Your task to perform on an android device: add a contact in the contacts app Image 0: 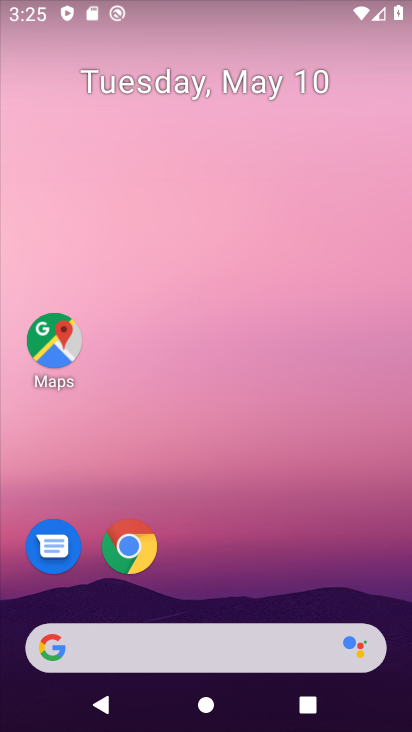
Step 0: drag from (196, 629) to (296, 110)
Your task to perform on an android device: add a contact in the contacts app Image 1: 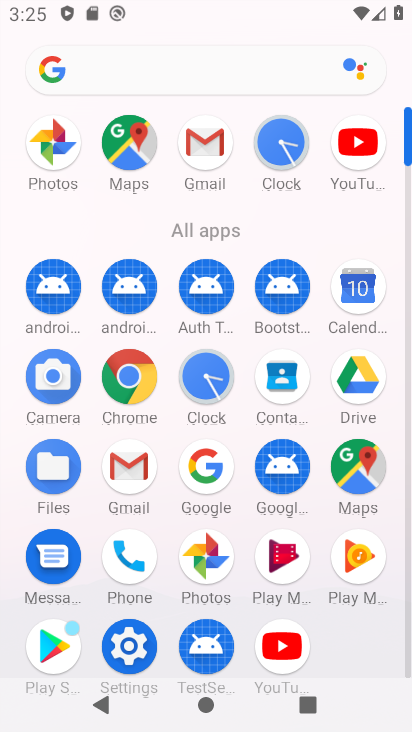
Step 1: click (288, 380)
Your task to perform on an android device: add a contact in the contacts app Image 2: 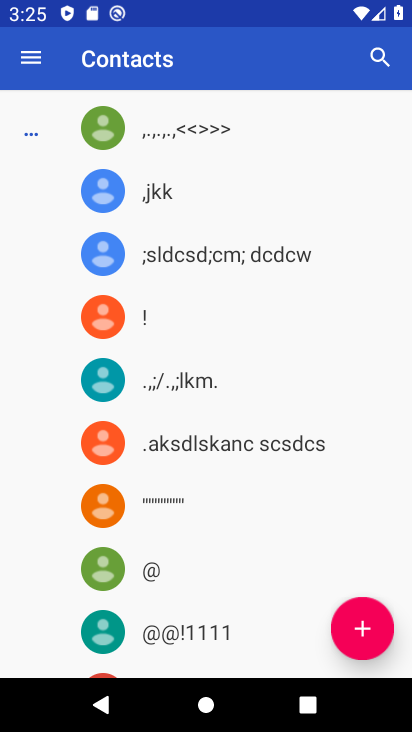
Step 2: click (364, 636)
Your task to perform on an android device: add a contact in the contacts app Image 3: 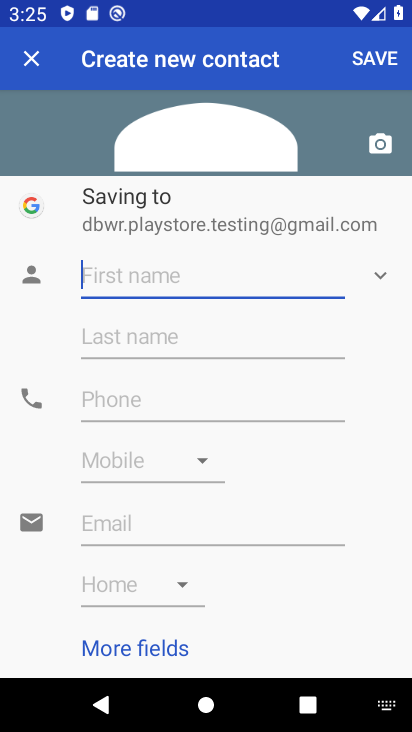
Step 3: type "POPS"
Your task to perform on an android device: add a contact in the contacts app Image 4: 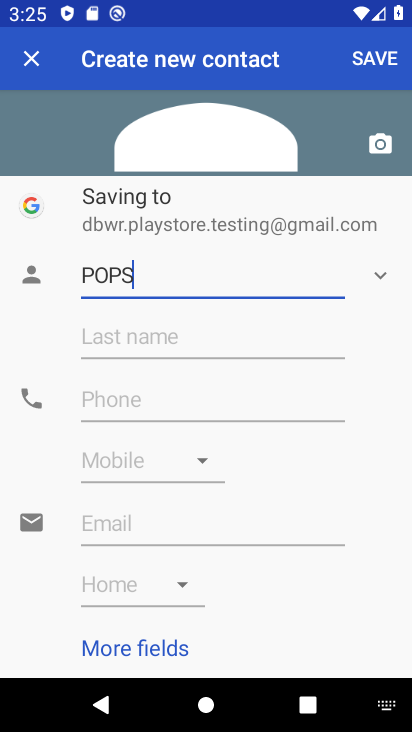
Step 4: click (150, 397)
Your task to perform on an android device: add a contact in the contacts app Image 5: 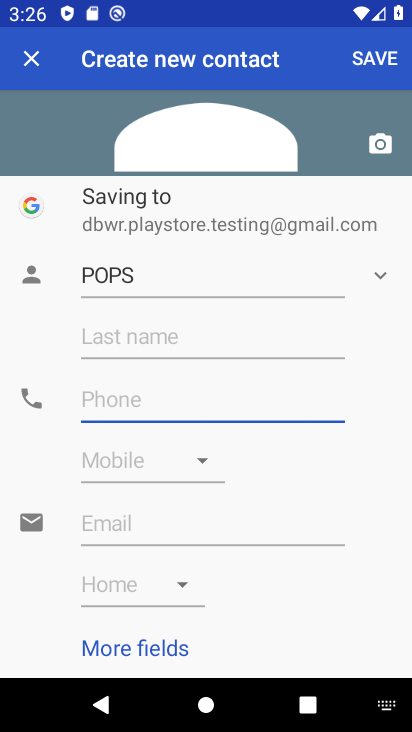
Step 5: type "2828232309"
Your task to perform on an android device: add a contact in the contacts app Image 6: 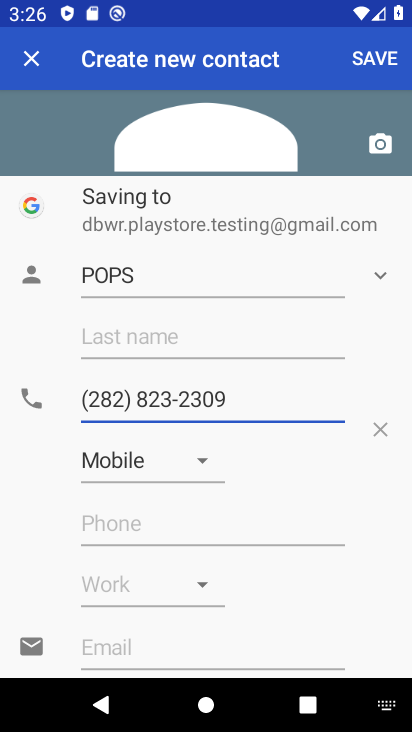
Step 6: click (386, 74)
Your task to perform on an android device: add a contact in the contacts app Image 7: 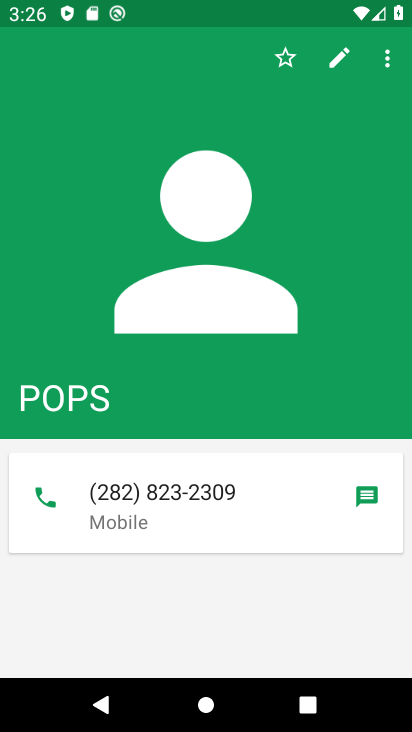
Step 7: task complete